Your task to perform on an android device: View the shopping cart on newegg.com. Image 0: 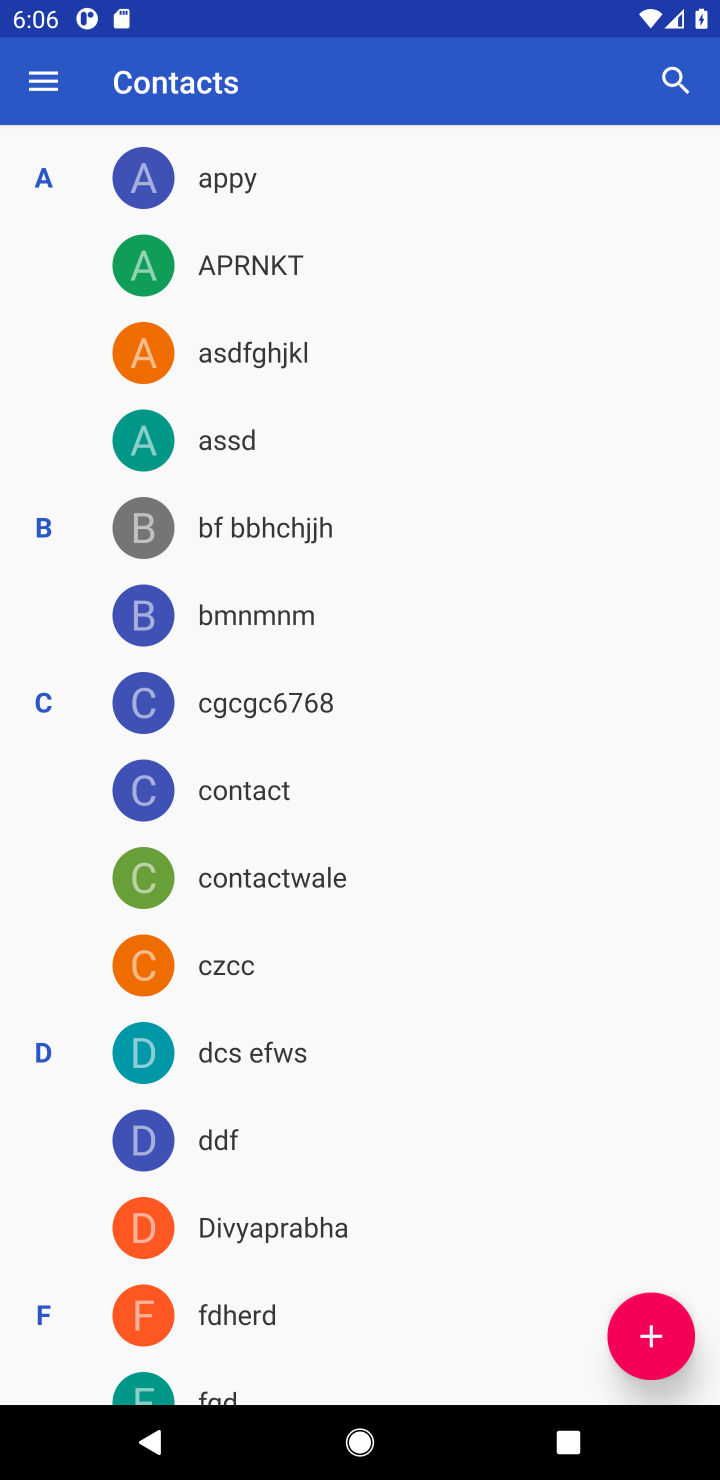
Step 0: press home button
Your task to perform on an android device: View the shopping cart on newegg.com. Image 1: 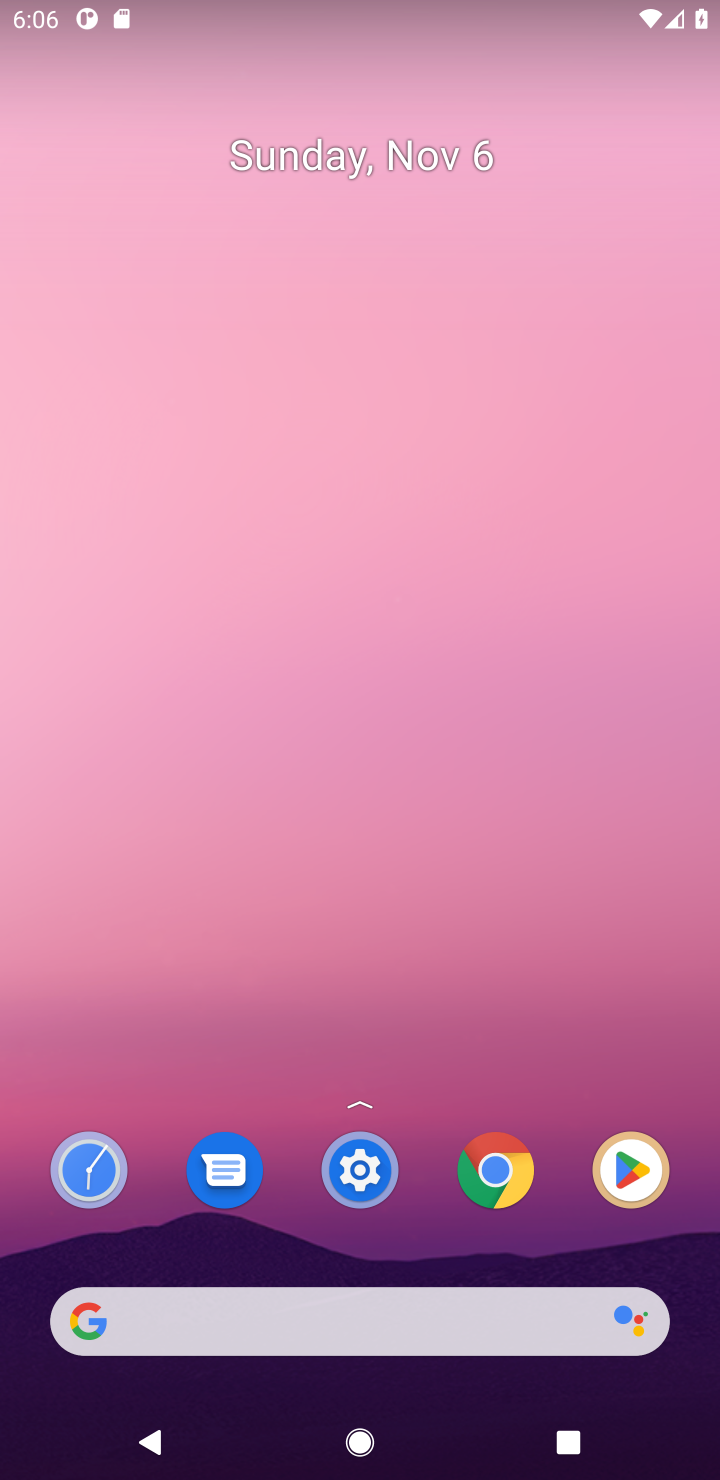
Step 1: click (484, 1196)
Your task to perform on an android device: View the shopping cart on newegg.com. Image 2: 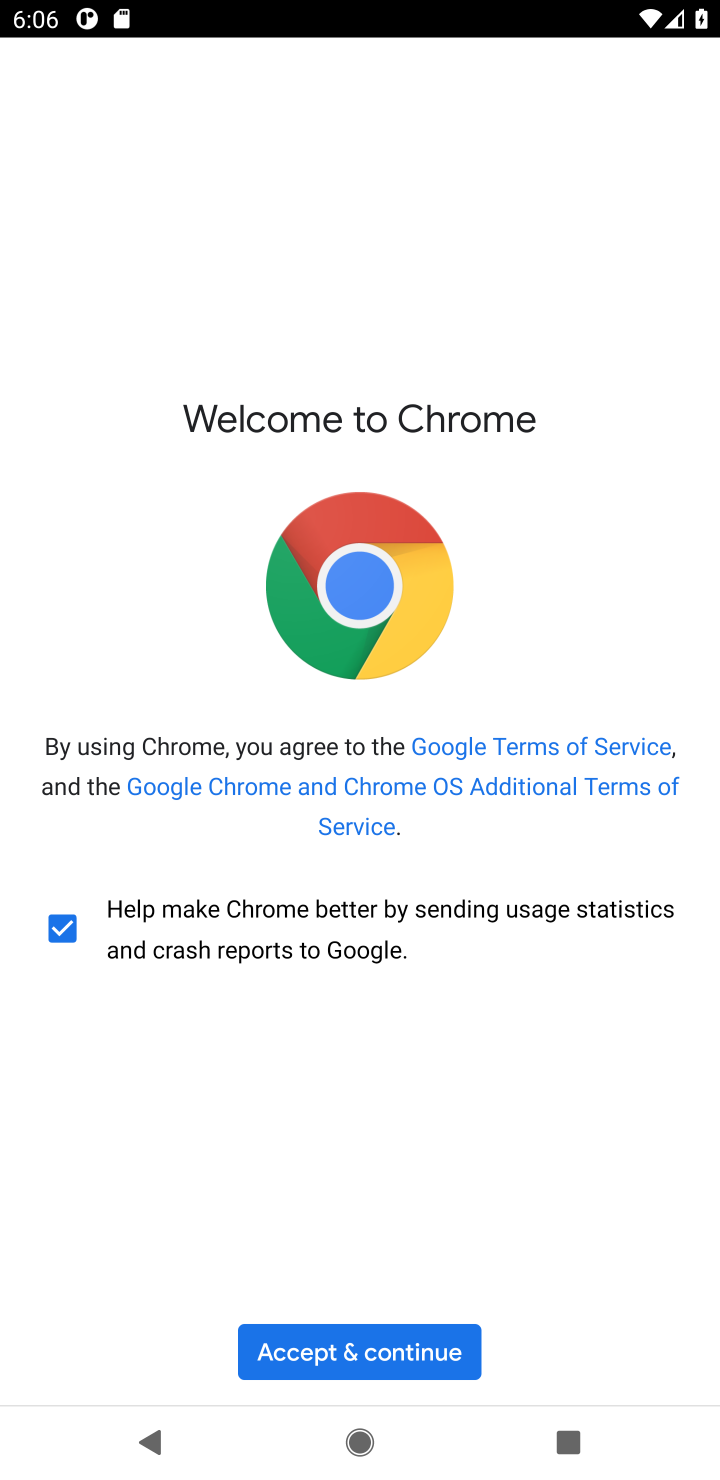
Step 2: click (358, 1351)
Your task to perform on an android device: View the shopping cart on newegg.com. Image 3: 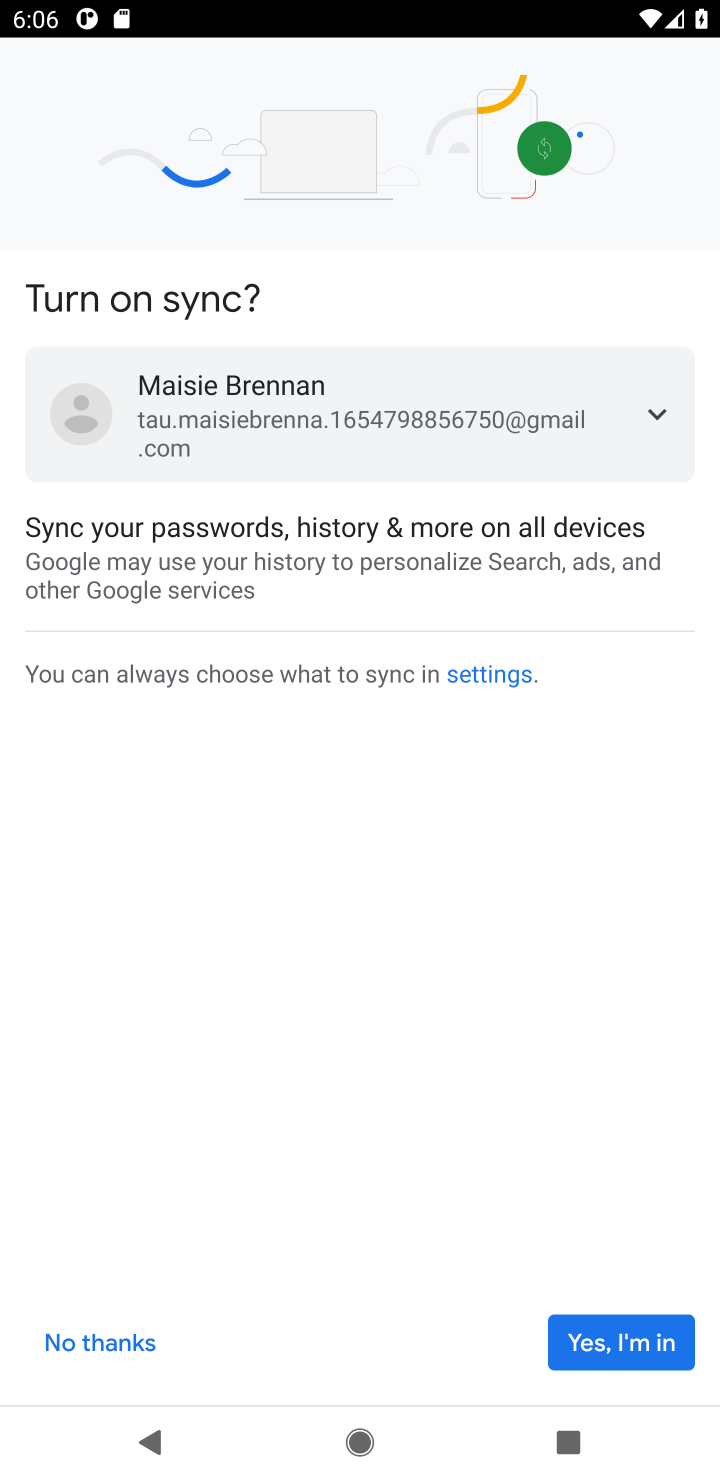
Step 3: click (117, 1349)
Your task to perform on an android device: View the shopping cart on newegg.com. Image 4: 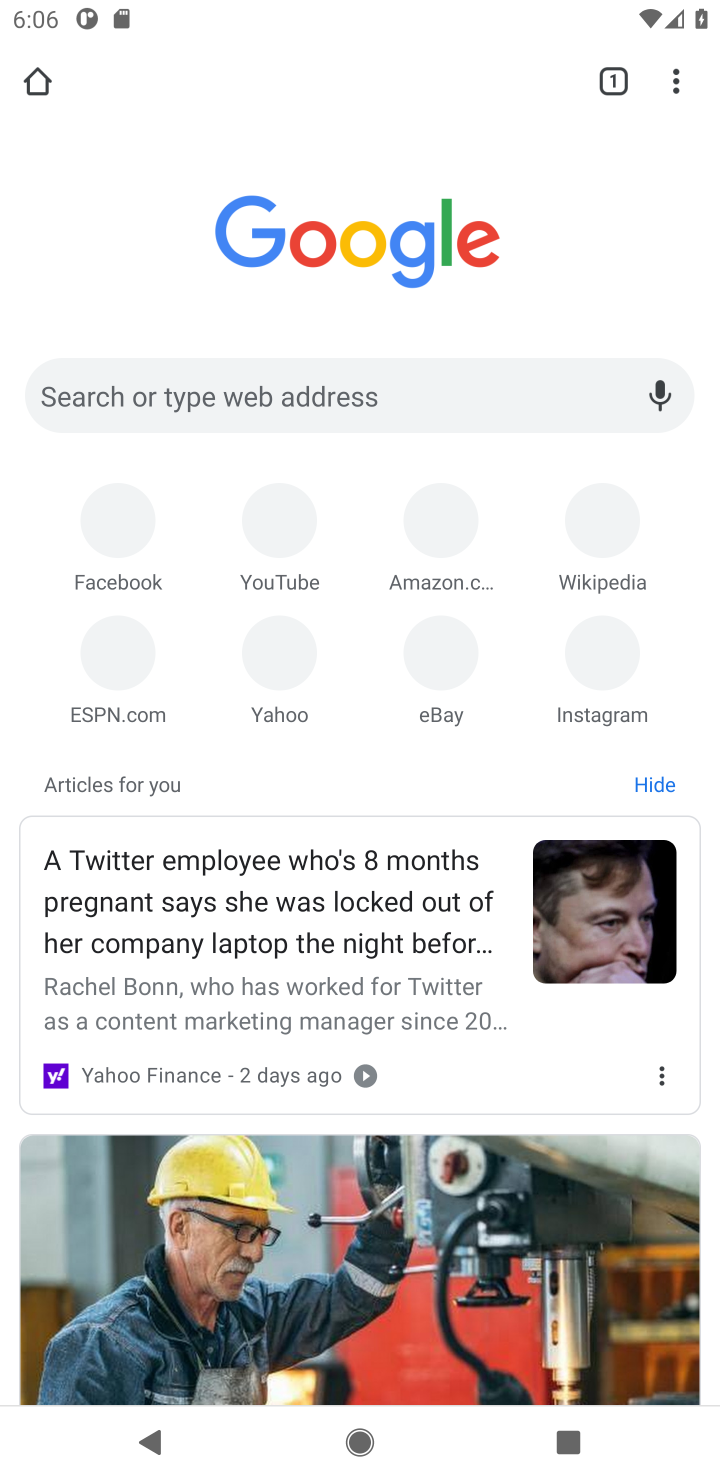
Step 4: click (271, 389)
Your task to perform on an android device: View the shopping cart on newegg.com. Image 5: 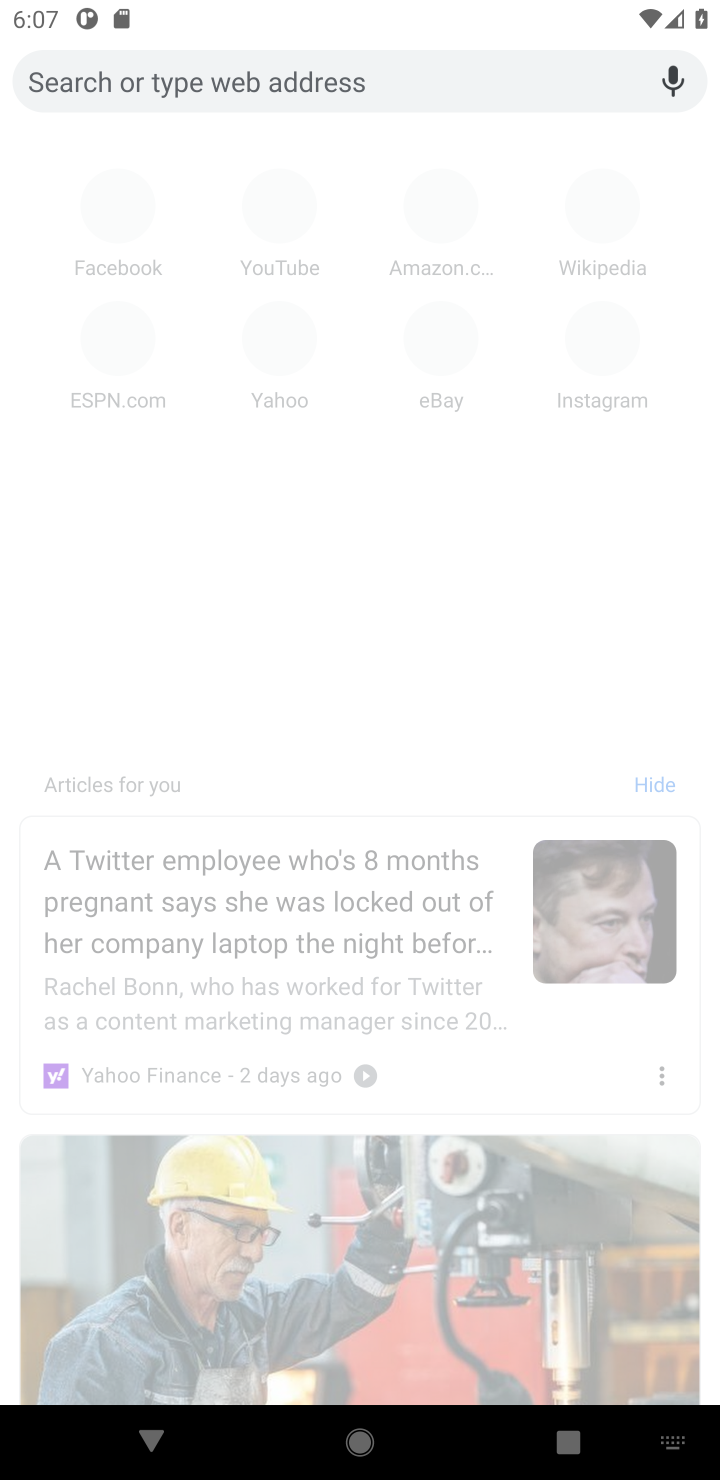
Step 5: type "newegg.com"
Your task to perform on an android device: View the shopping cart on newegg.com. Image 6: 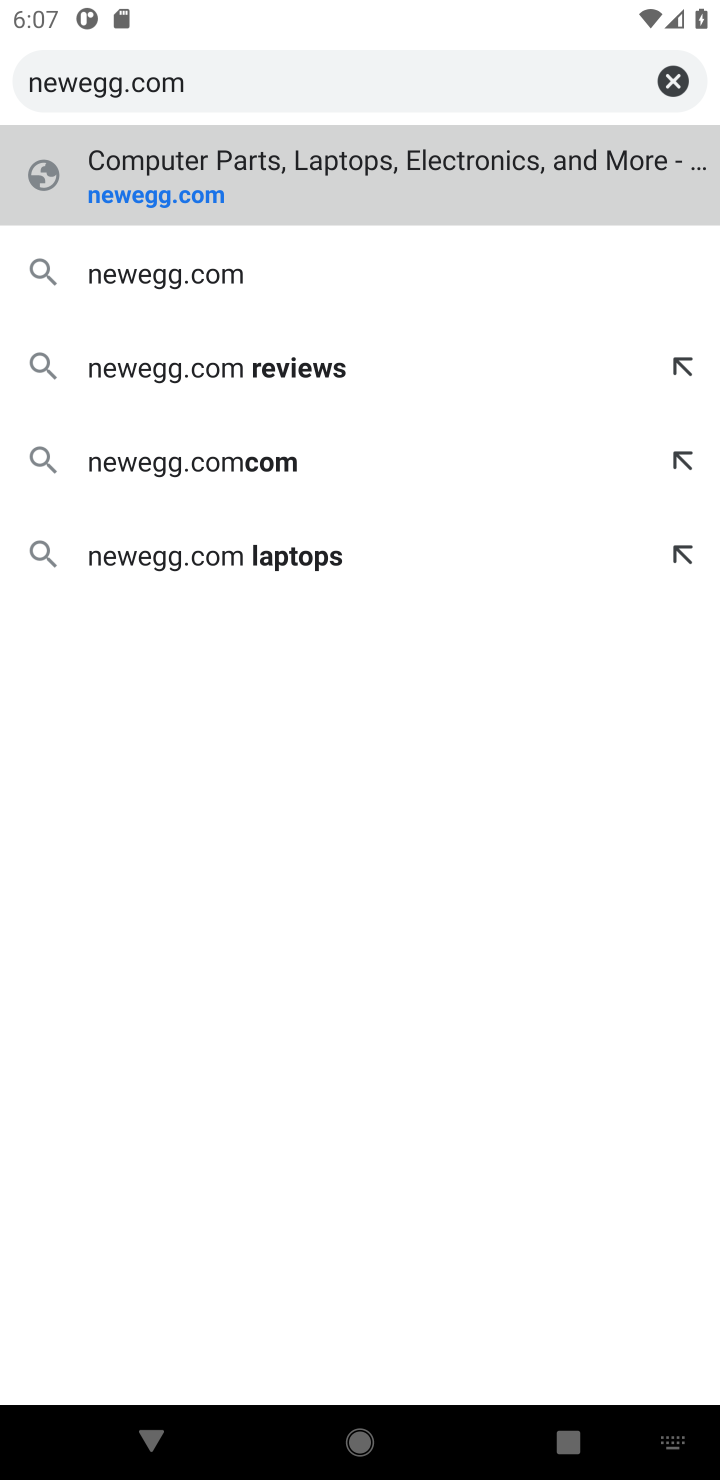
Step 6: press enter
Your task to perform on an android device: View the shopping cart on newegg.com. Image 7: 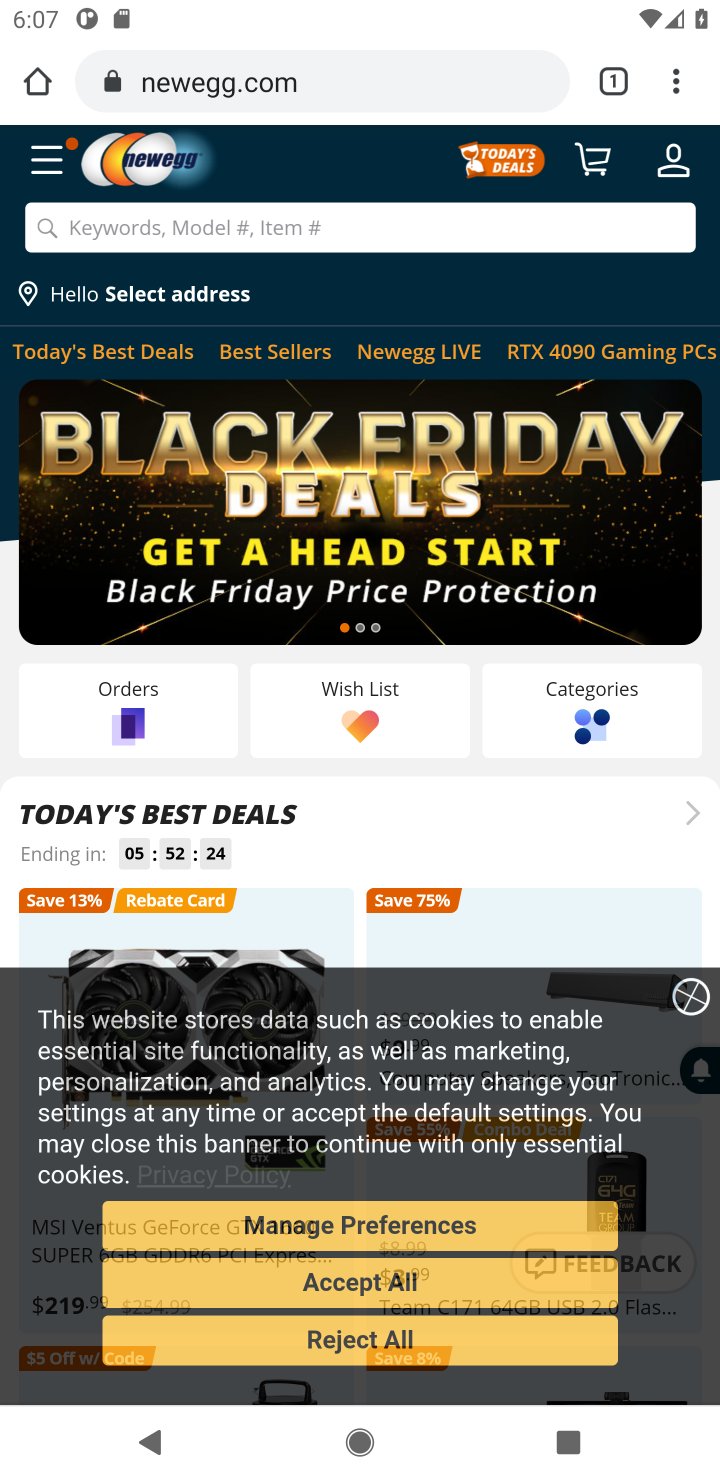
Step 7: click (592, 151)
Your task to perform on an android device: View the shopping cart on newegg.com. Image 8: 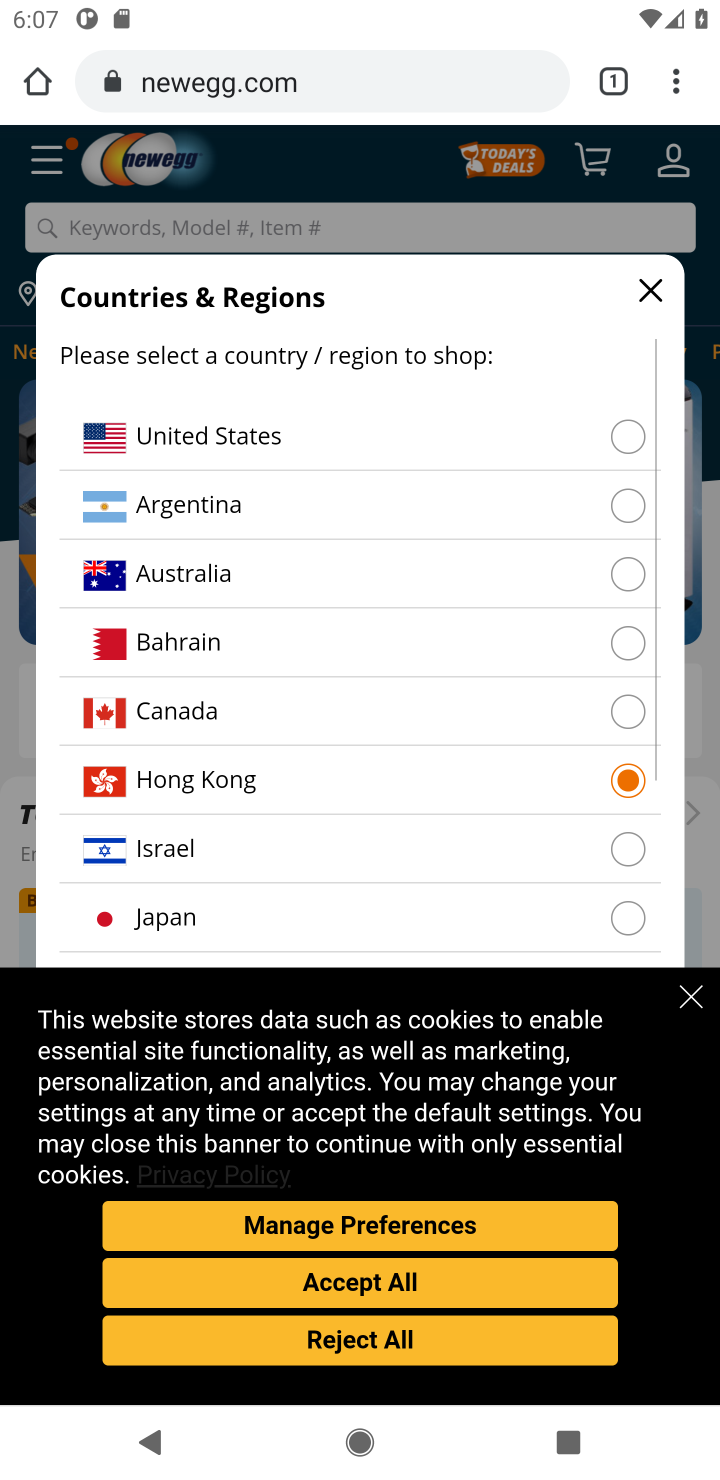
Step 8: click (700, 999)
Your task to perform on an android device: View the shopping cart on newegg.com. Image 9: 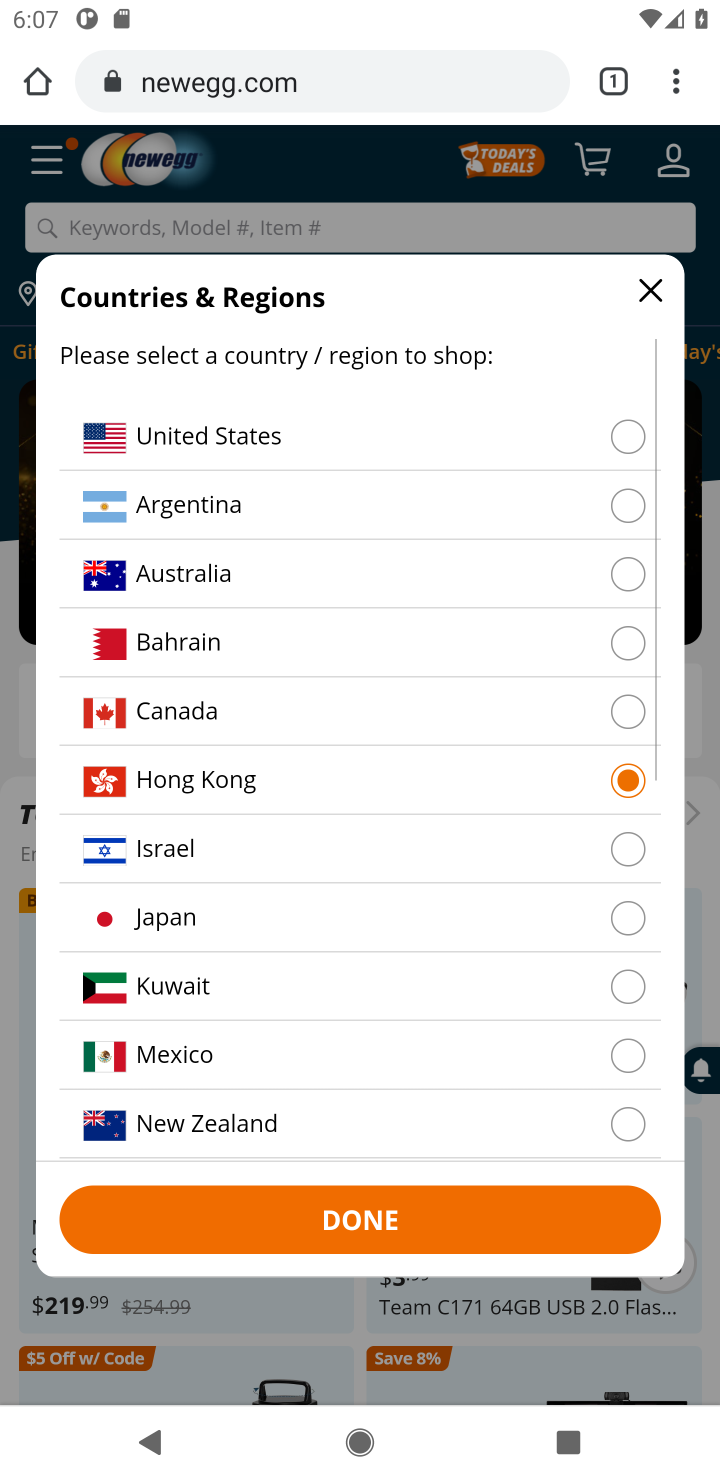
Step 9: click (648, 291)
Your task to perform on an android device: View the shopping cart on newegg.com. Image 10: 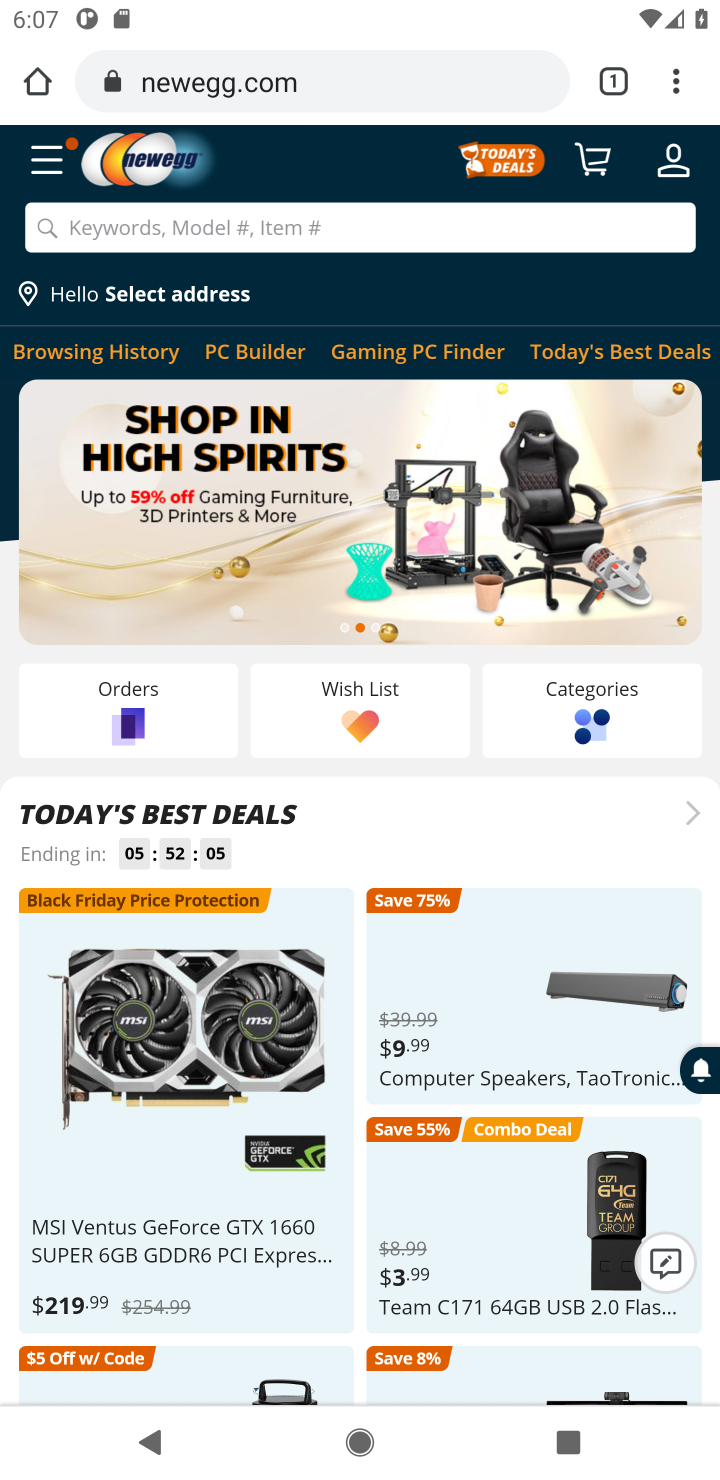
Step 10: click (599, 168)
Your task to perform on an android device: View the shopping cart on newegg.com. Image 11: 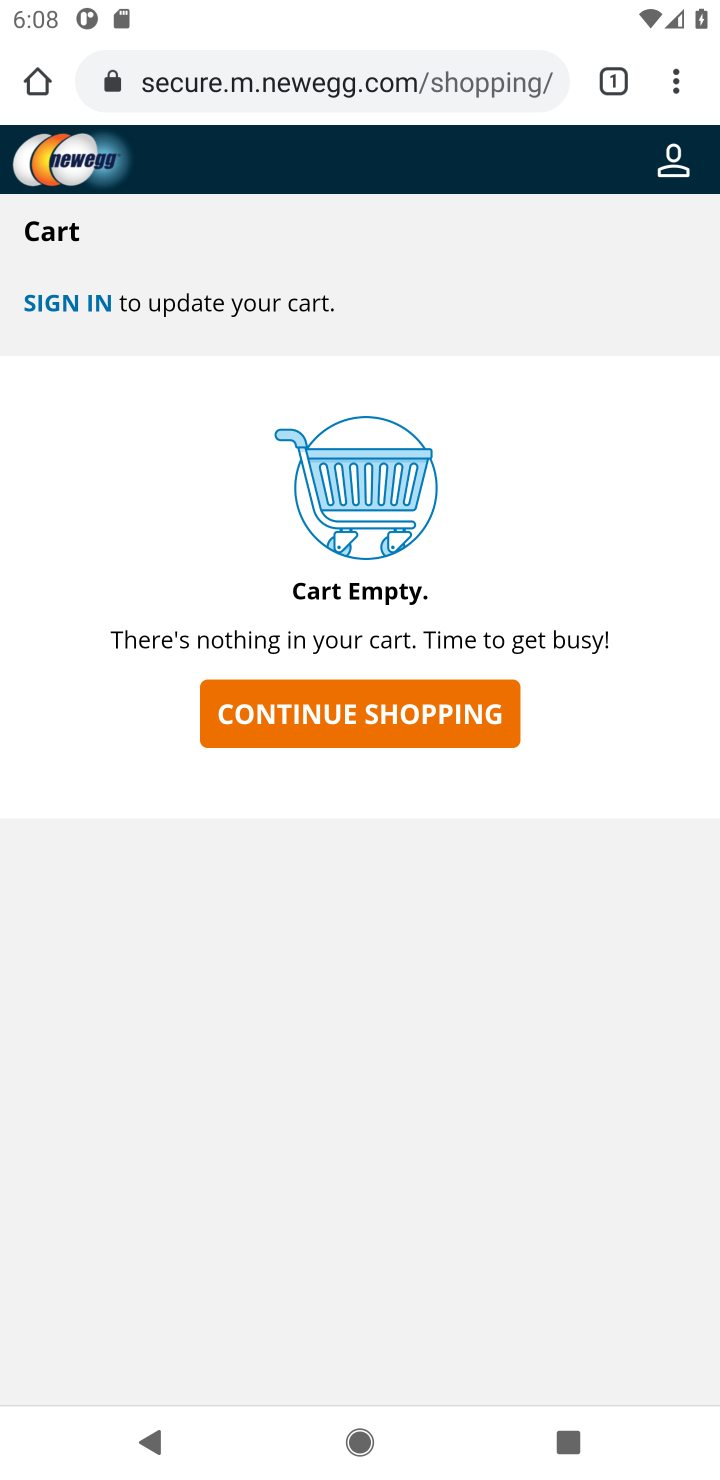
Step 11: task complete